Your task to perform on an android device: Go to calendar. Show me events next week Image 0: 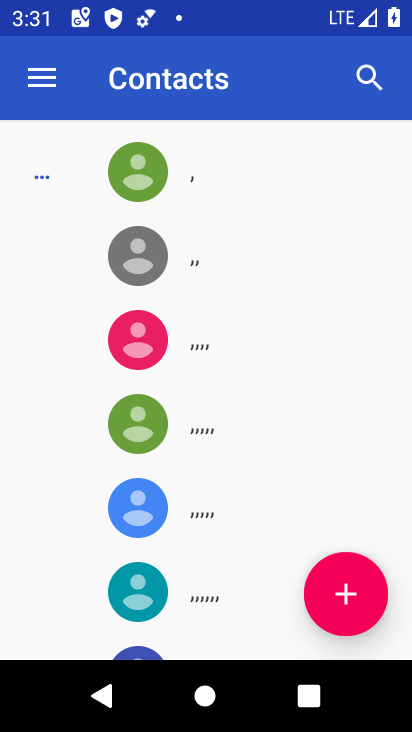
Step 0: press home button
Your task to perform on an android device: Go to calendar. Show me events next week Image 1: 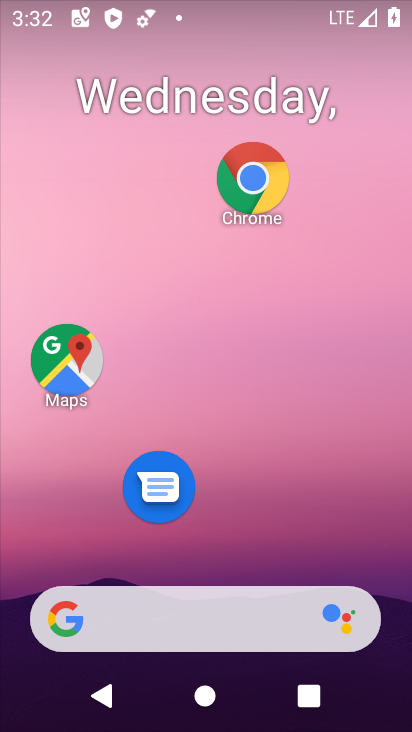
Step 1: drag from (239, 529) to (356, 68)
Your task to perform on an android device: Go to calendar. Show me events next week Image 2: 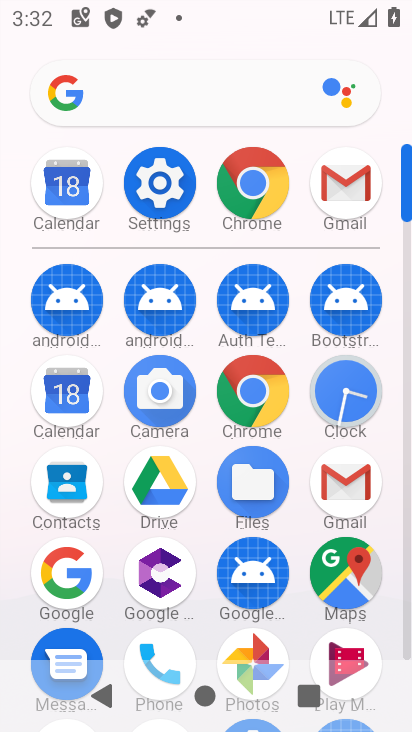
Step 2: click (79, 385)
Your task to perform on an android device: Go to calendar. Show me events next week Image 3: 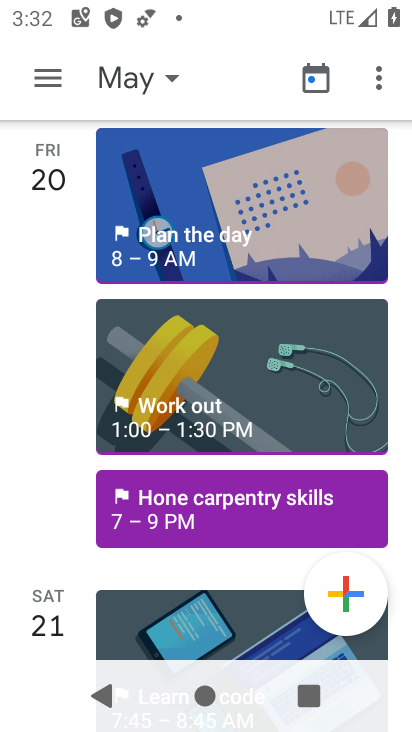
Step 3: click (168, 70)
Your task to perform on an android device: Go to calendar. Show me events next week Image 4: 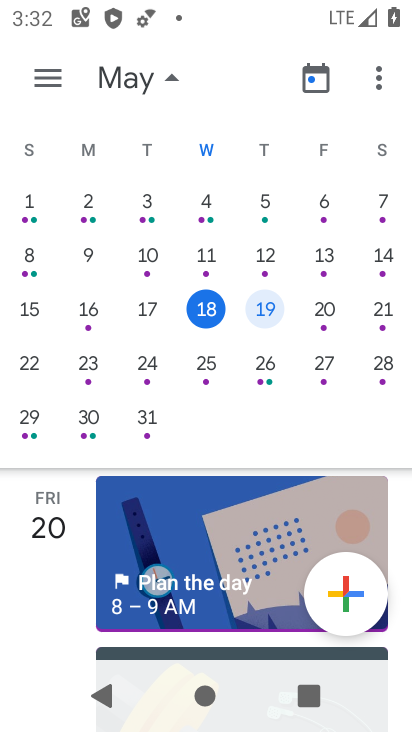
Step 4: click (204, 322)
Your task to perform on an android device: Go to calendar. Show me events next week Image 5: 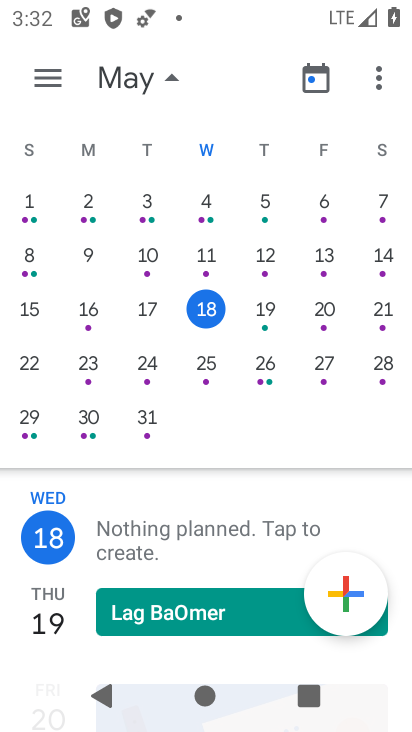
Step 5: task complete